Your task to perform on an android device: Go to CNN.com Image 0: 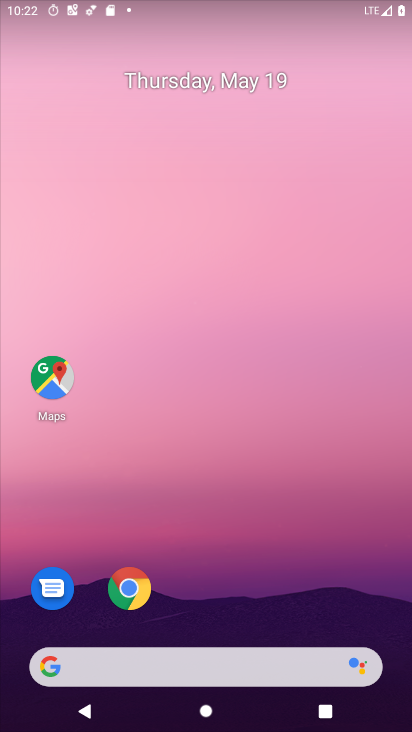
Step 0: press home button
Your task to perform on an android device: Go to CNN.com Image 1: 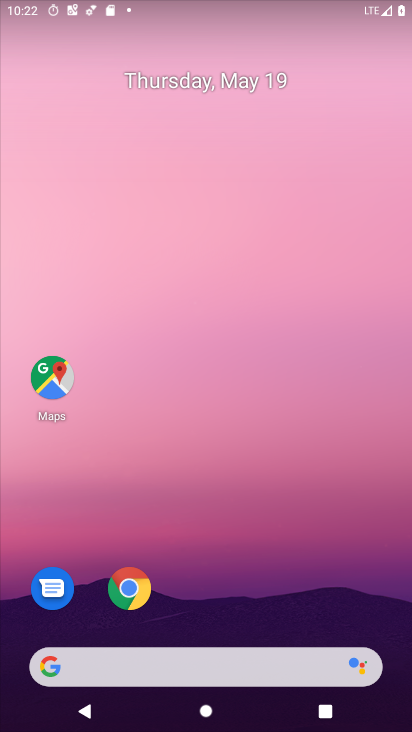
Step 1: click (130, 590)
Your task to perform on an android device: Go to CNN.com Image 2: 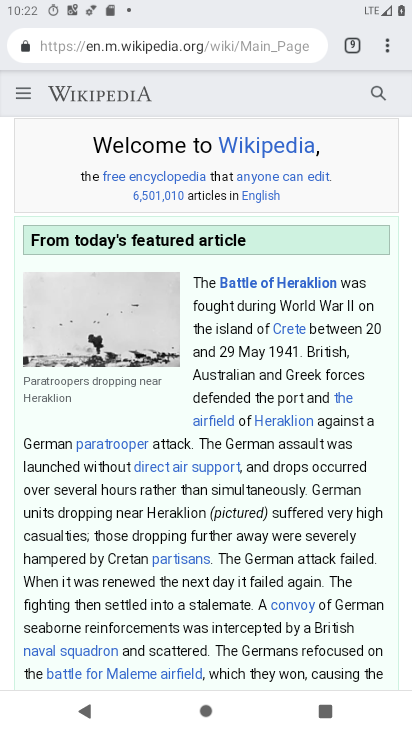
Step 2: drag from (386, 41) to (333, 89)
Your task to perform on an android device: Go to CNN.com Image 3: 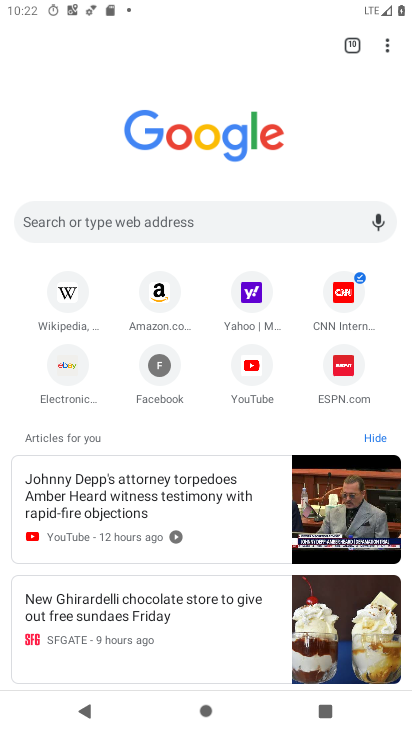
Step 3: click (343, 285)
Your task to perform on an android device: Go to CNN.com Image 4: 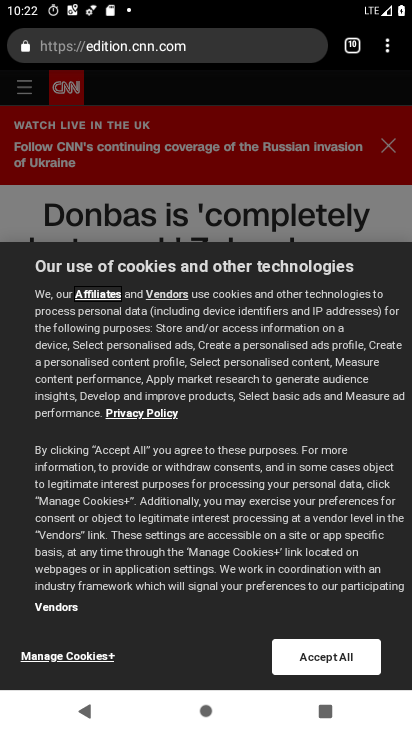
Step 4: click (316, 651)
Your task to perform on an android device: Go to CNN.com Image 5: 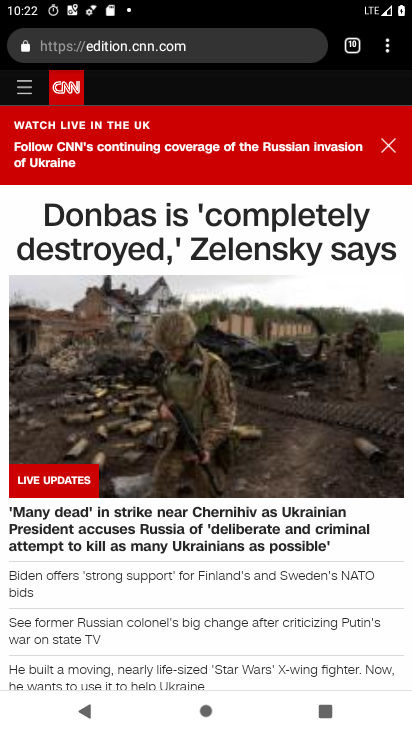
Step 5: task complete